Your task to perform on an android device: Open Reddit.com Image 0: 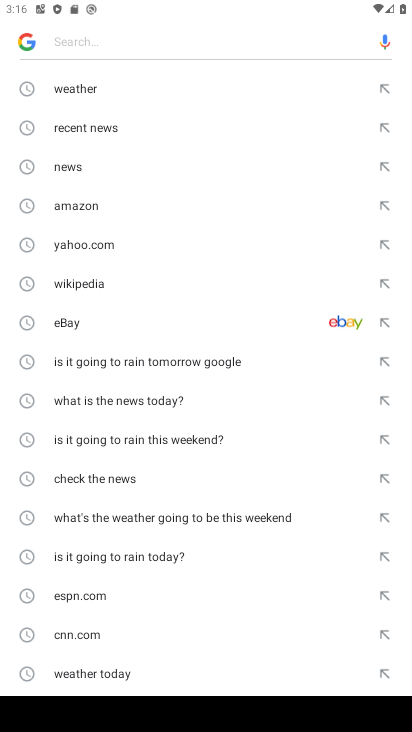
Step 0: type "reddit"
Your task to perform on an android device: Open Reddit.com Image 1: 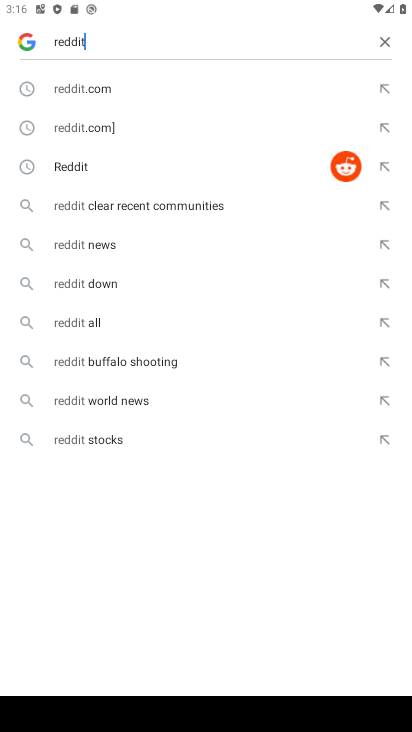
Step 1: click (314, 78)
Your task to perform on an android device: Open Reddit.com Image 2: 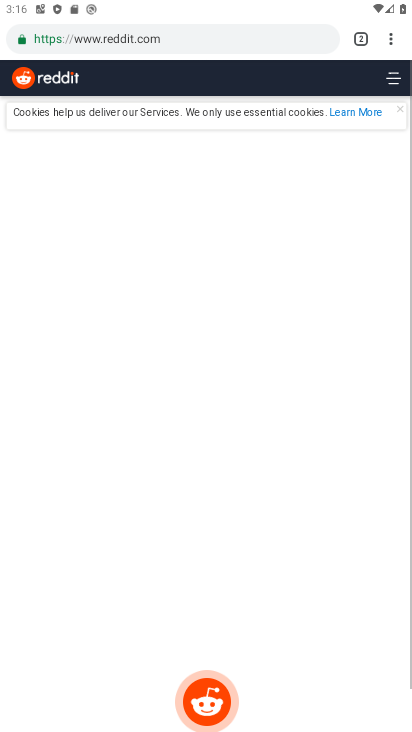
Step 2: task complete